Your task to perform on an android device: uninstall "Truecaller" Image 0: 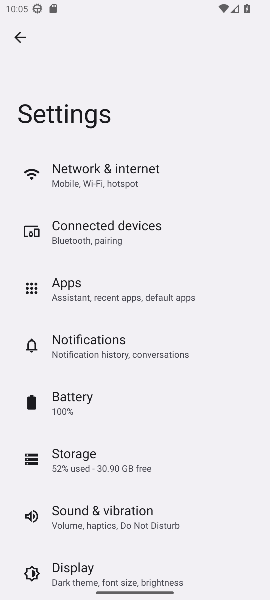
Step 0: press home button
Your task to perform on an android device: uninstall "Truecaller" Image 1: 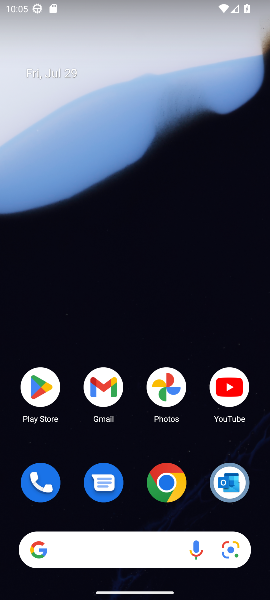
Step 1: click (40, 397)
Your task to perform on an android device: uninstall "Truecaller" Image 2: 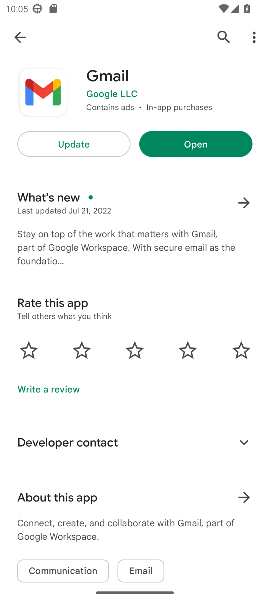
Step 2: click (219, 33)
Your task to perform on an android device: uninstall "Truecaller" Image 3: 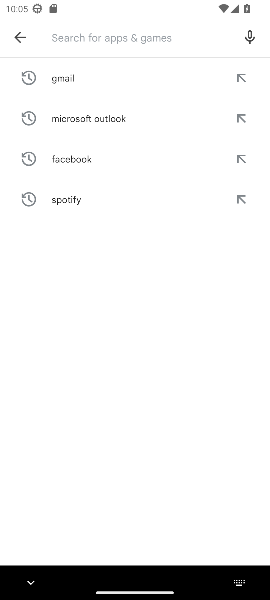
Step 3: type "Truecaller"
Your task to perform on an android device: uninstall "Truecaller" Image 4: 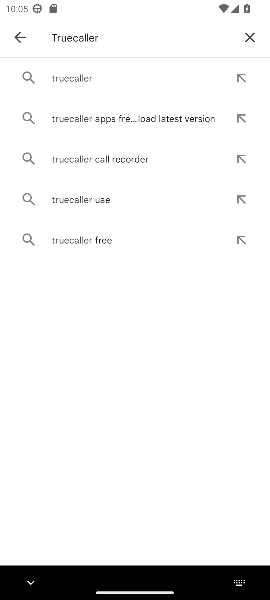
Step 4: click (82, 79)
Your task to perform on an android device: uninstall "Truecaller" Image 5: 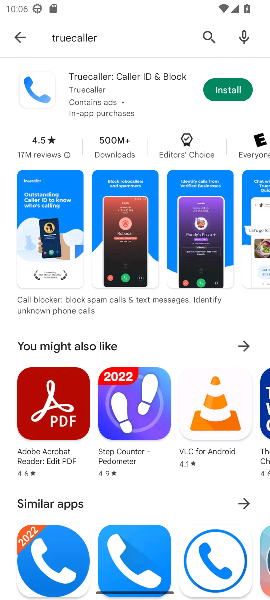
Step 5: task complete